Your task to perform on an android device: Go to Amazon Image 0: 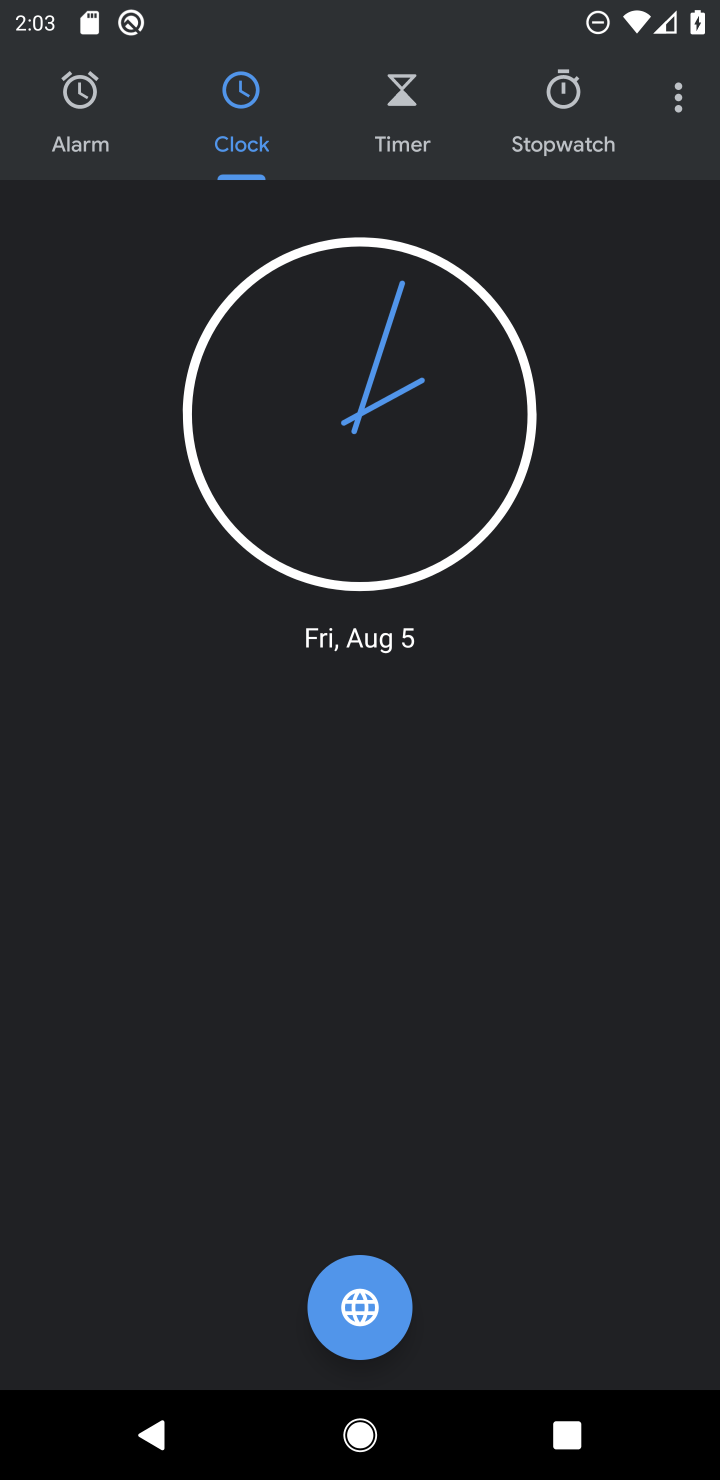
Step 0: press home button
Your task to perform on an android device: Go to Amazon Image 1: 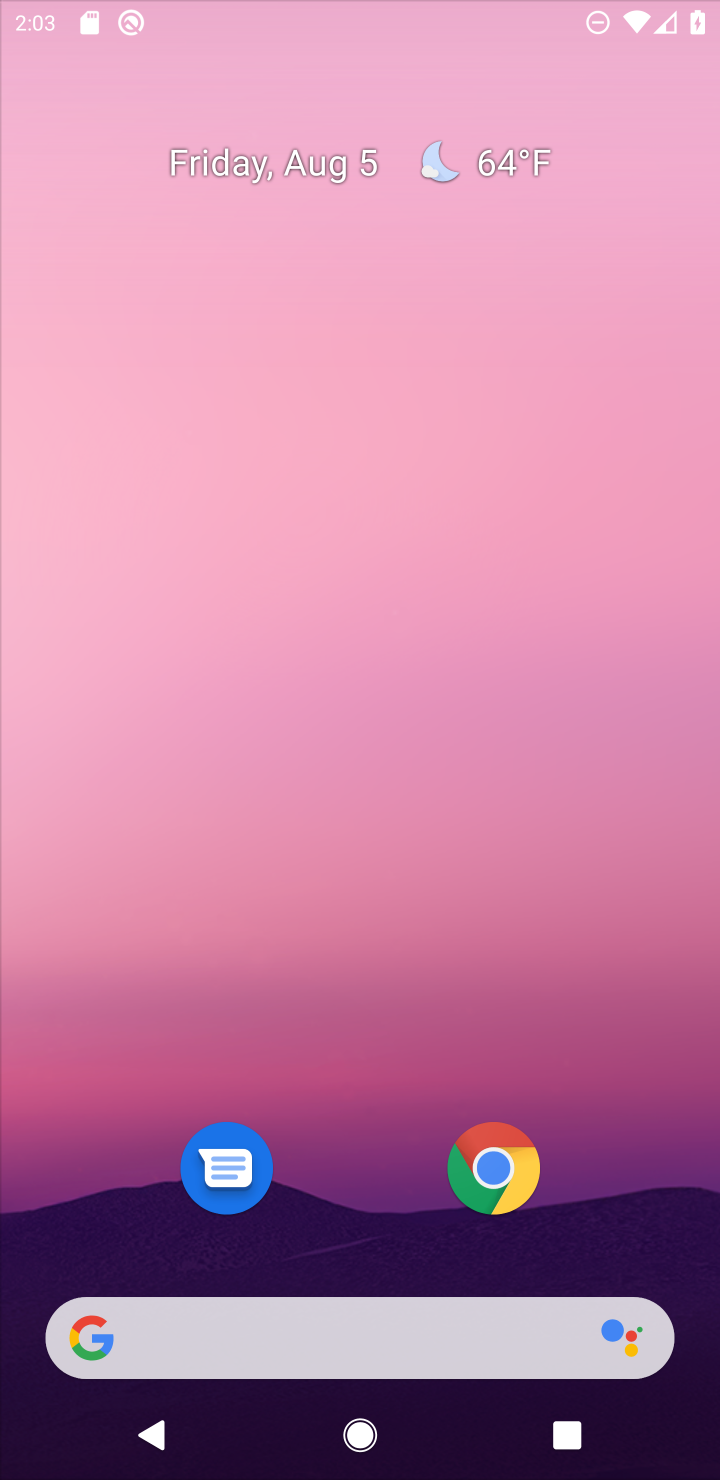
Step 1: drag from (660, 1201) to (288, 13)
Your task to perform on an android device: Go to Amazon Image 2: 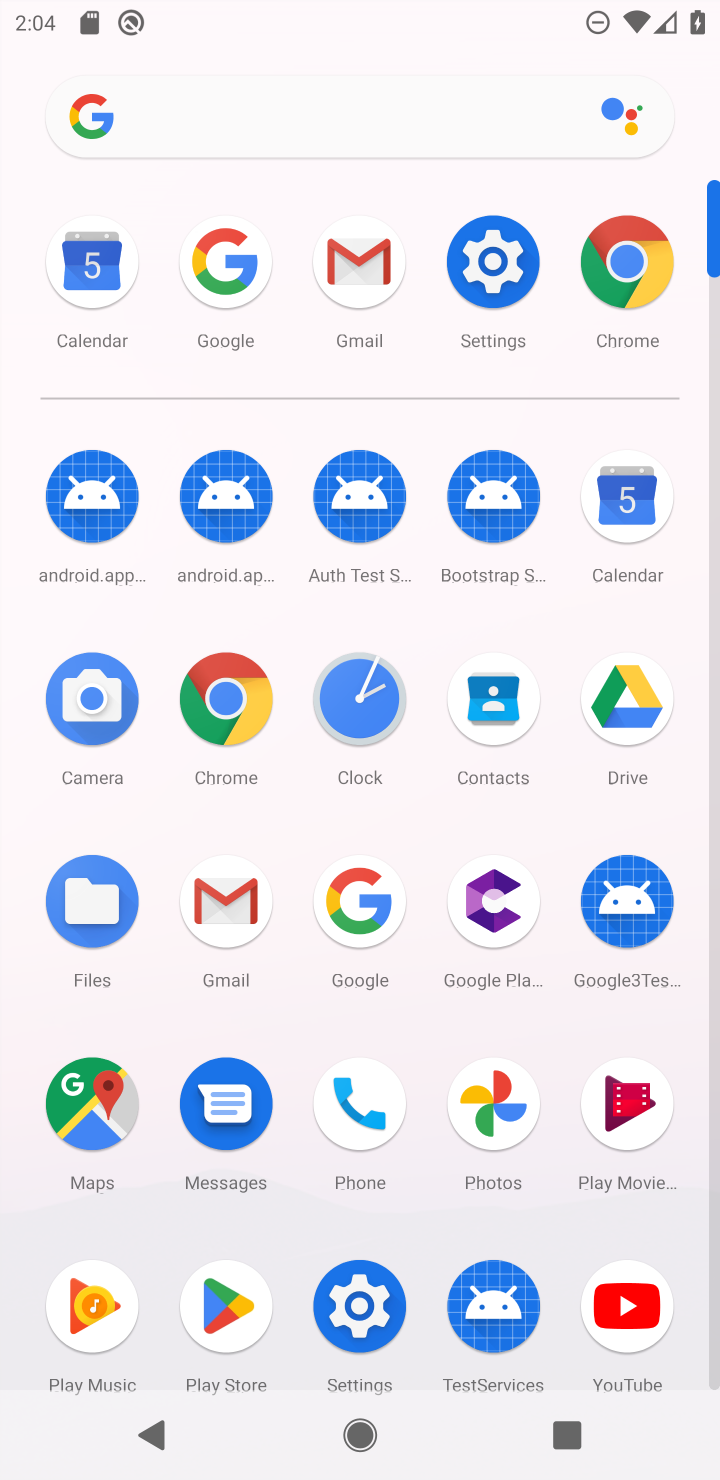
Step 2: click (362, 875)
Your task to perform on an android device: Go to Amazon Image 3: 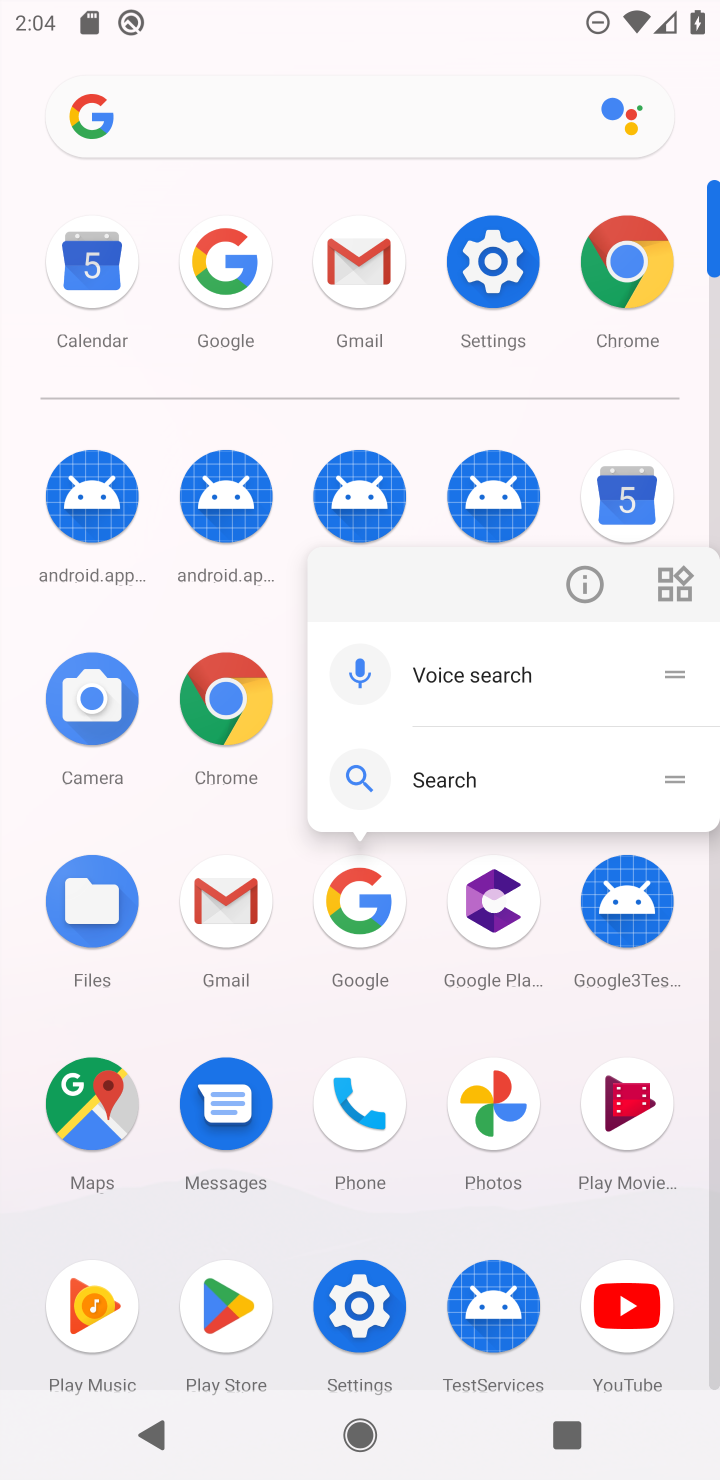
Step 3: click (362, 890)
Your task to perform on an android device: Go to Amazon Image 4: 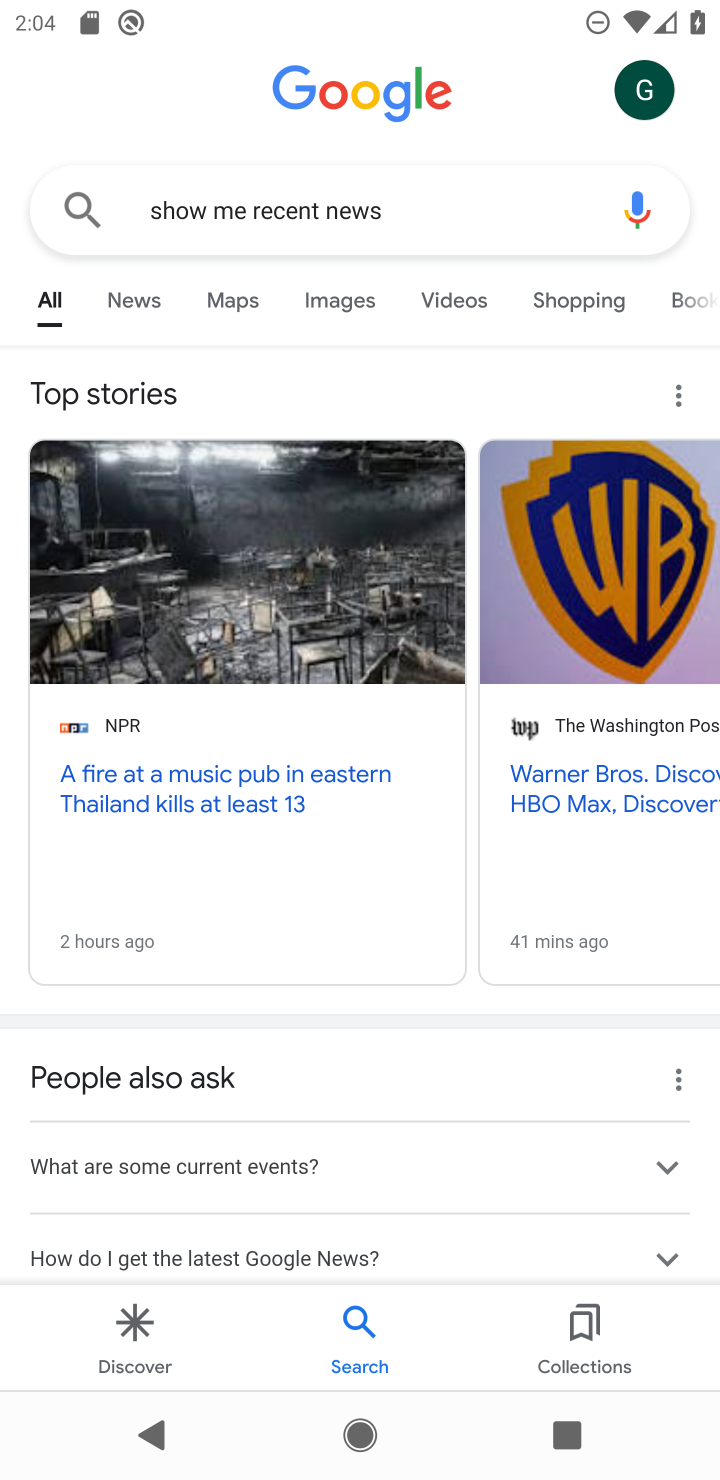
Step 4: press back button
Your task to perform on an android device: Go to Amazon Image 5: 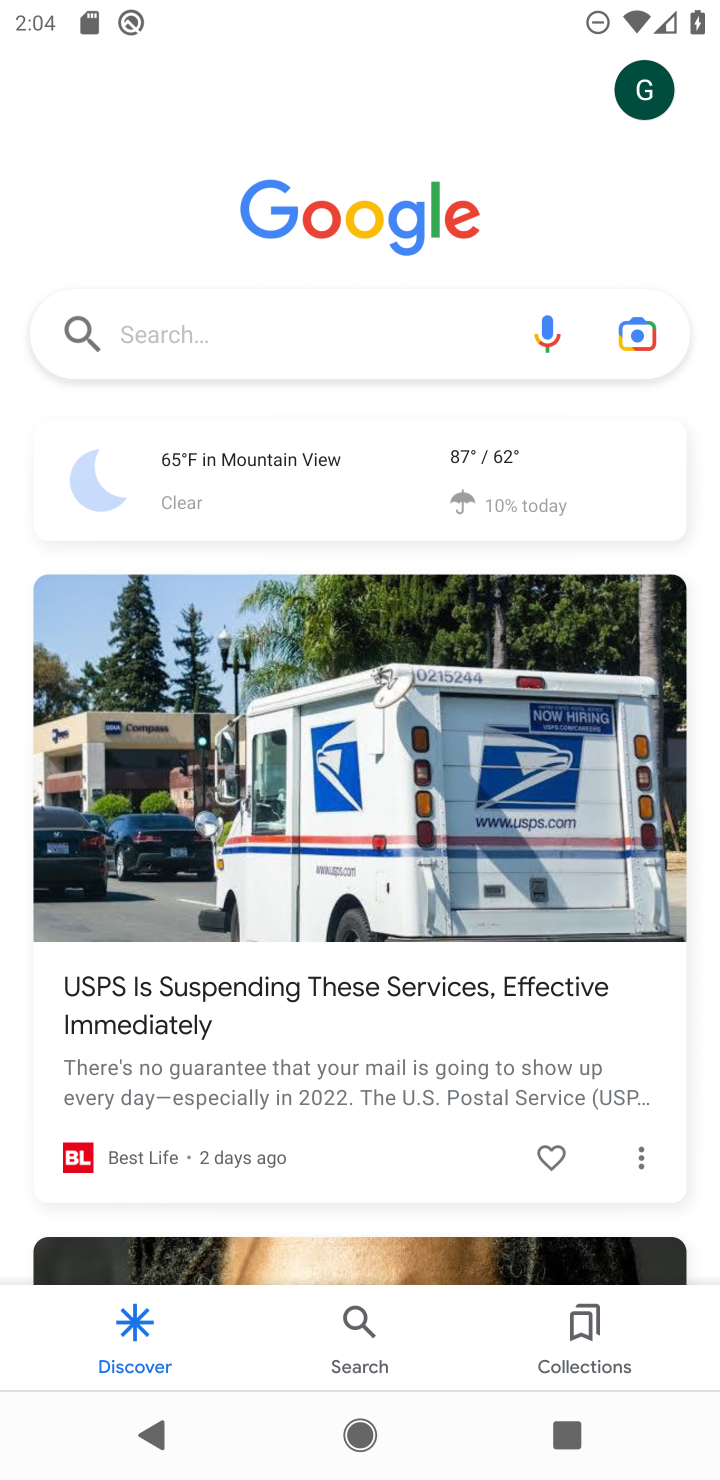
Step 5: click (196, 342)
Your task to perform on an android device: Go to Amazon Image 6: 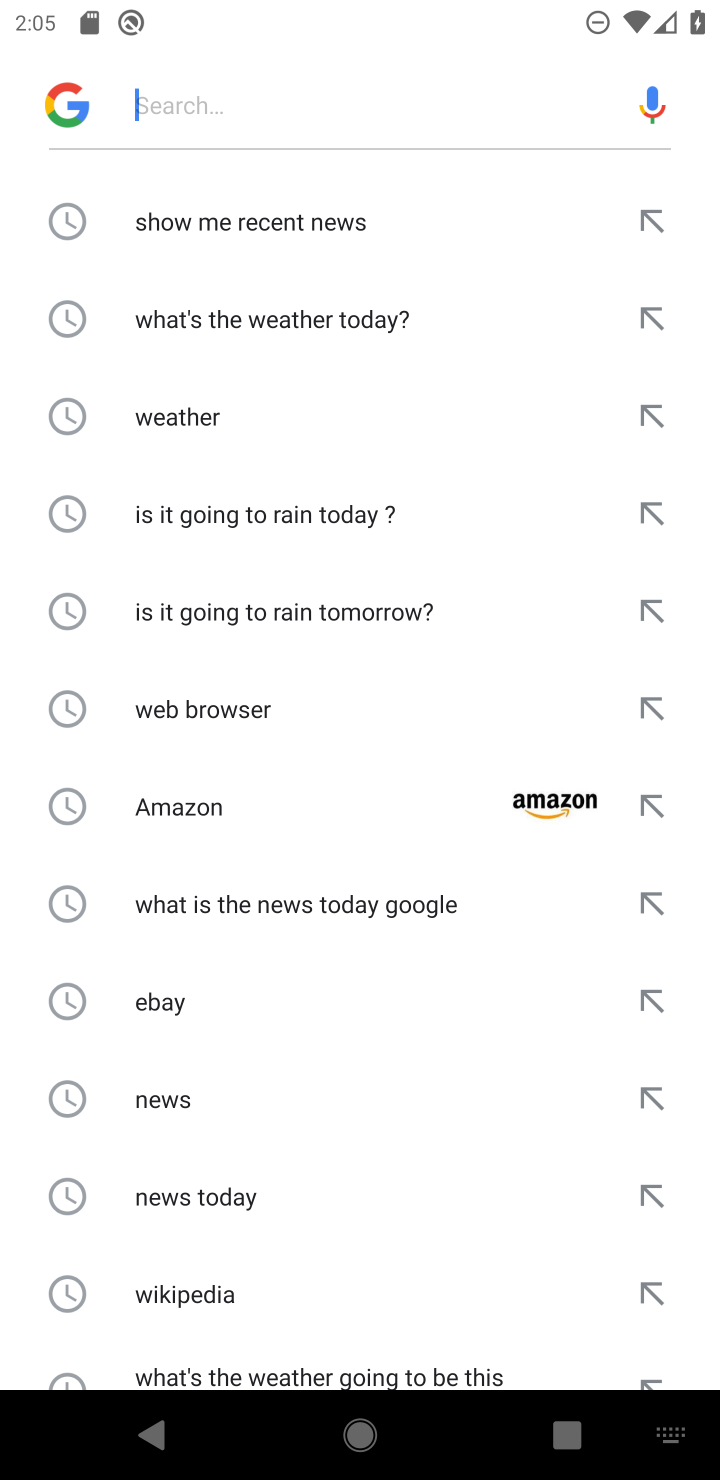
Step 6: click (218, 793)
Your task to perform on an android device: Go to Amazon Image 7: 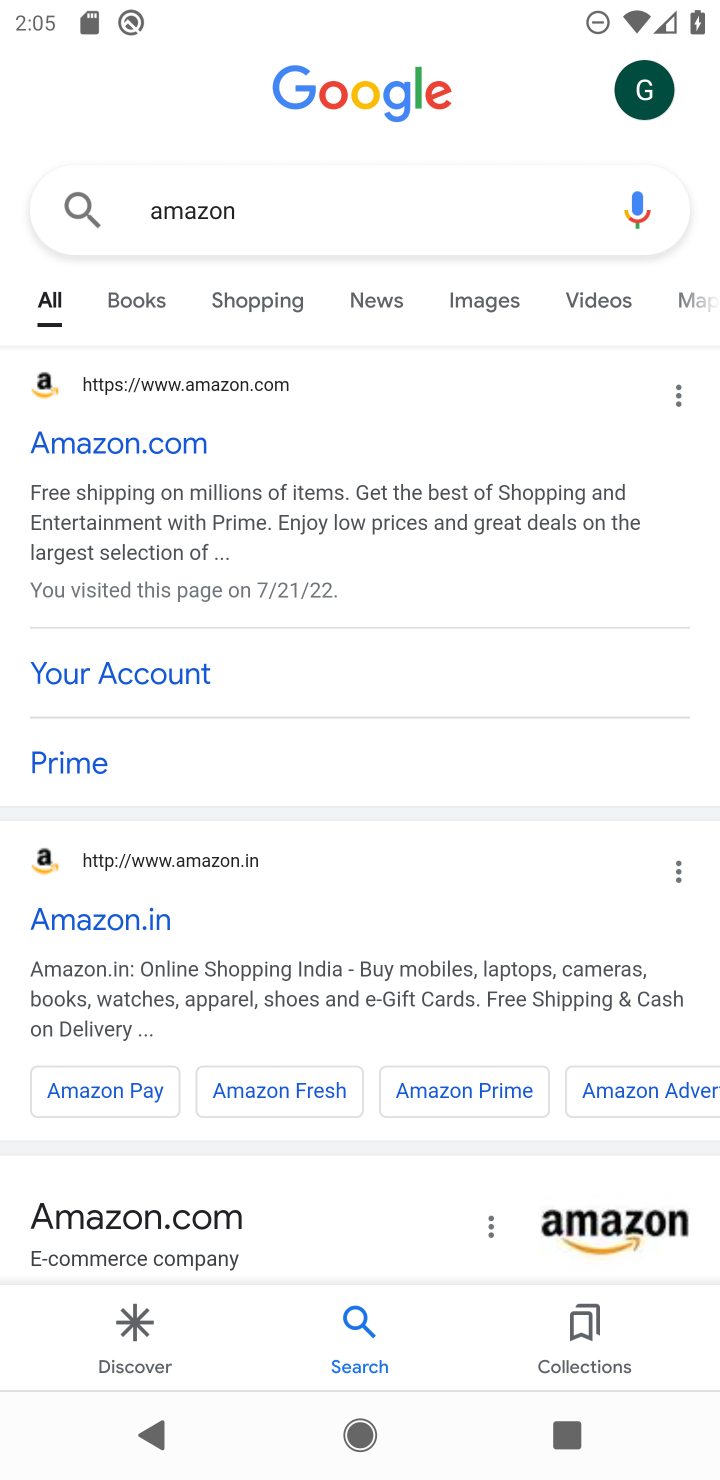
Step 7: task complete